Your task to perform on an android device: change alarm snooze length Image 0: 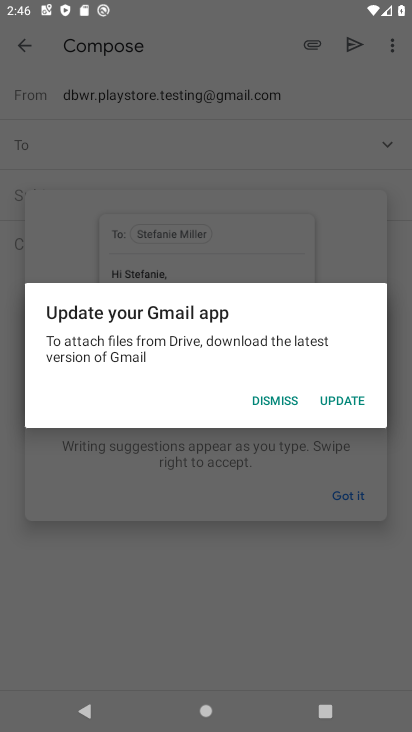
Step 0: press home button
Your task to perform on an android device: change alarm snooze length Image 1: 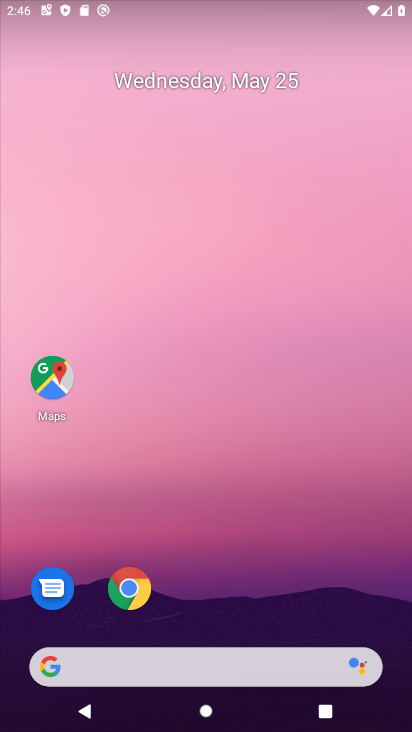
Step 1: drag from (237, 687) to (268, 113)
Your task to perform on an android device: change alarm snooze length Image 2: 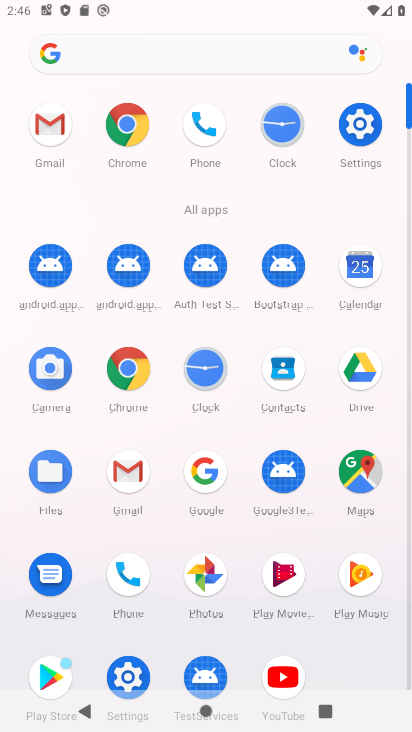
Step 2: click (279, 125)
Your task to perform on an android device: change alarm snooze length Image 3: 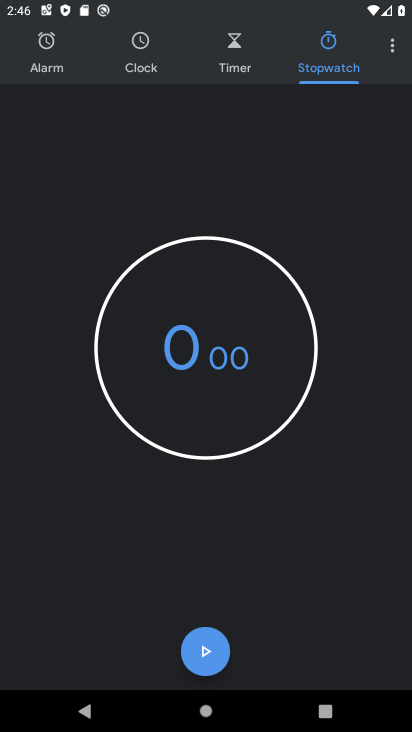
Step 3: click (392, 47)
Your task to perform on an android device: change alarm snooze length Image 4: 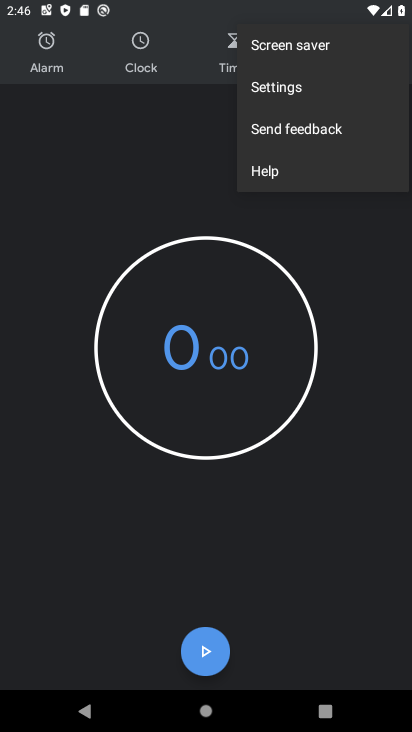
Step 4: click (299, 92)
Your task to perform on an android device: change alarm snooze length Image 5: 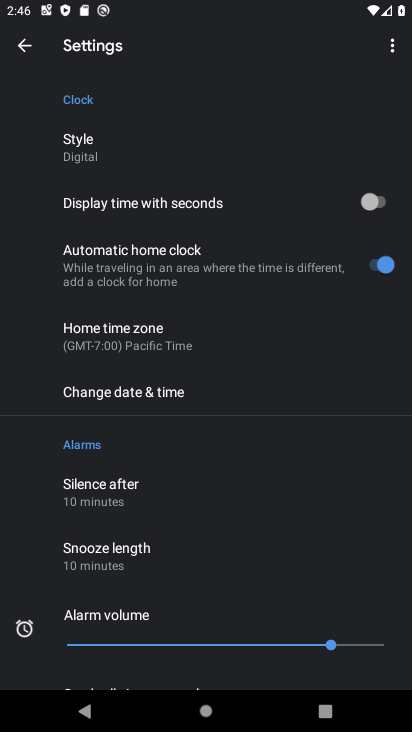
Step 5: click (170, 545)
Your task to perform on an android device: change alarm snooze length Image 6: 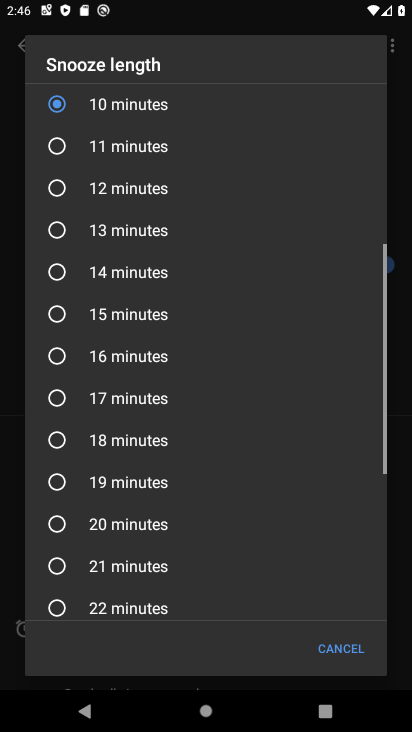
Step 6: click (155, 359)
Your task to perform on an android device: change alarm snooze length Image 7: 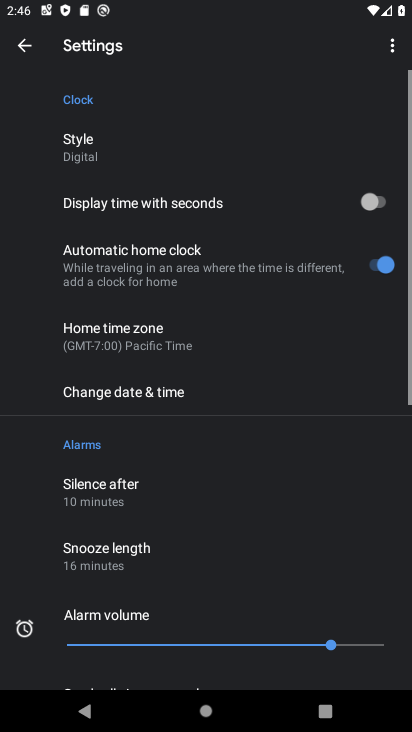
Step 7: task complete